Your task to perform on an android device: Go to wifi settings Image 0: 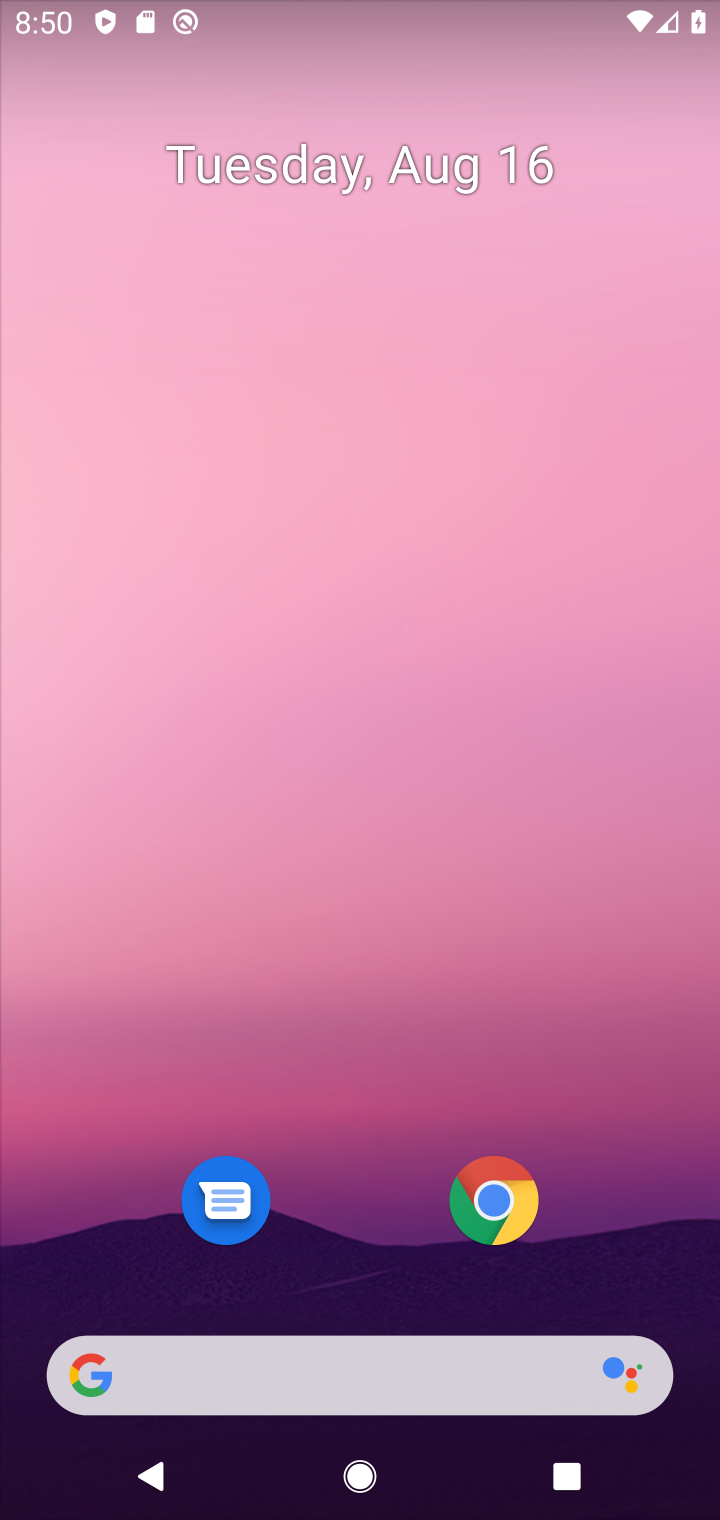
Step 0: drag from (318, 1228) to (320, 685)
Your task to perform on an android device: Go to wifi settings Image 1: 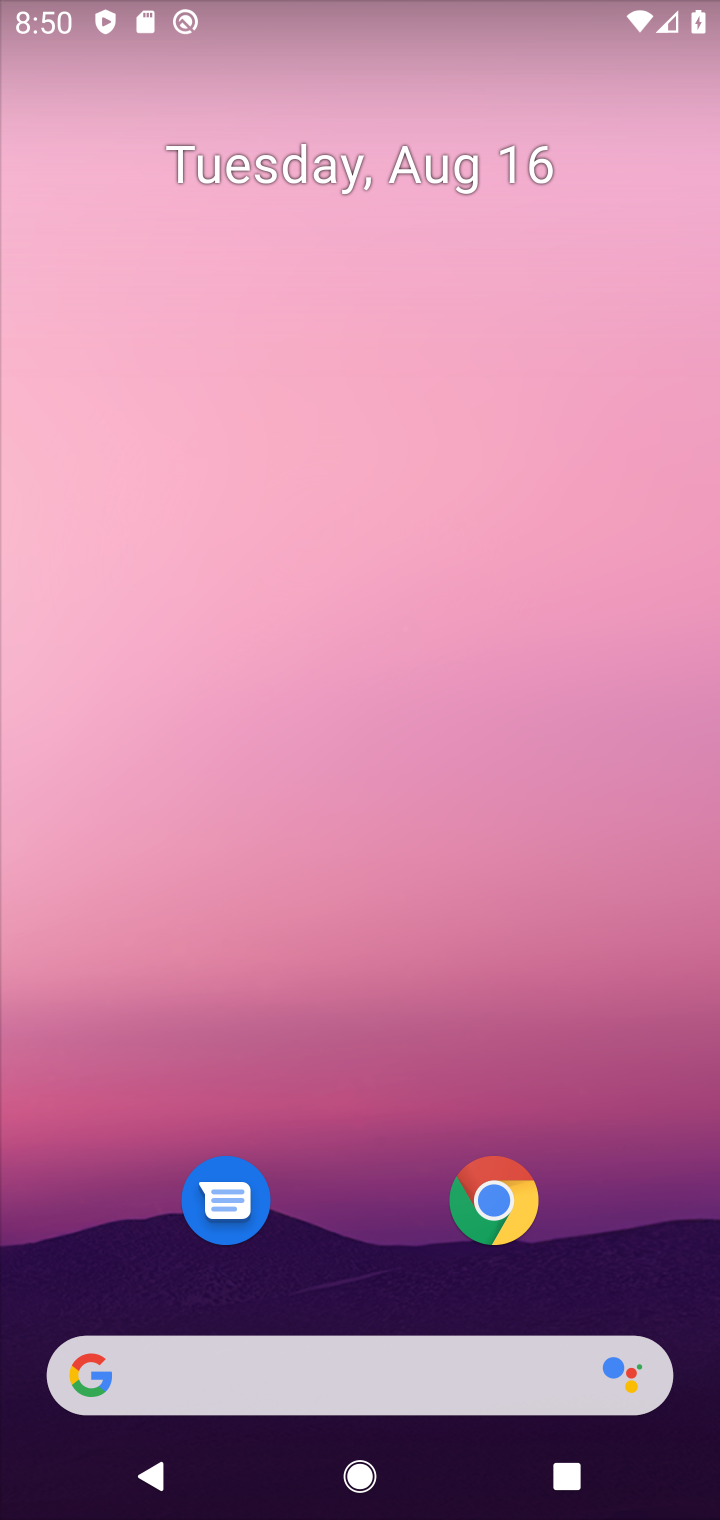
Step 1: drag from (334, 1216) to (561, 83)
Your task to perform on an android device: Go to wifi settings Image 2: 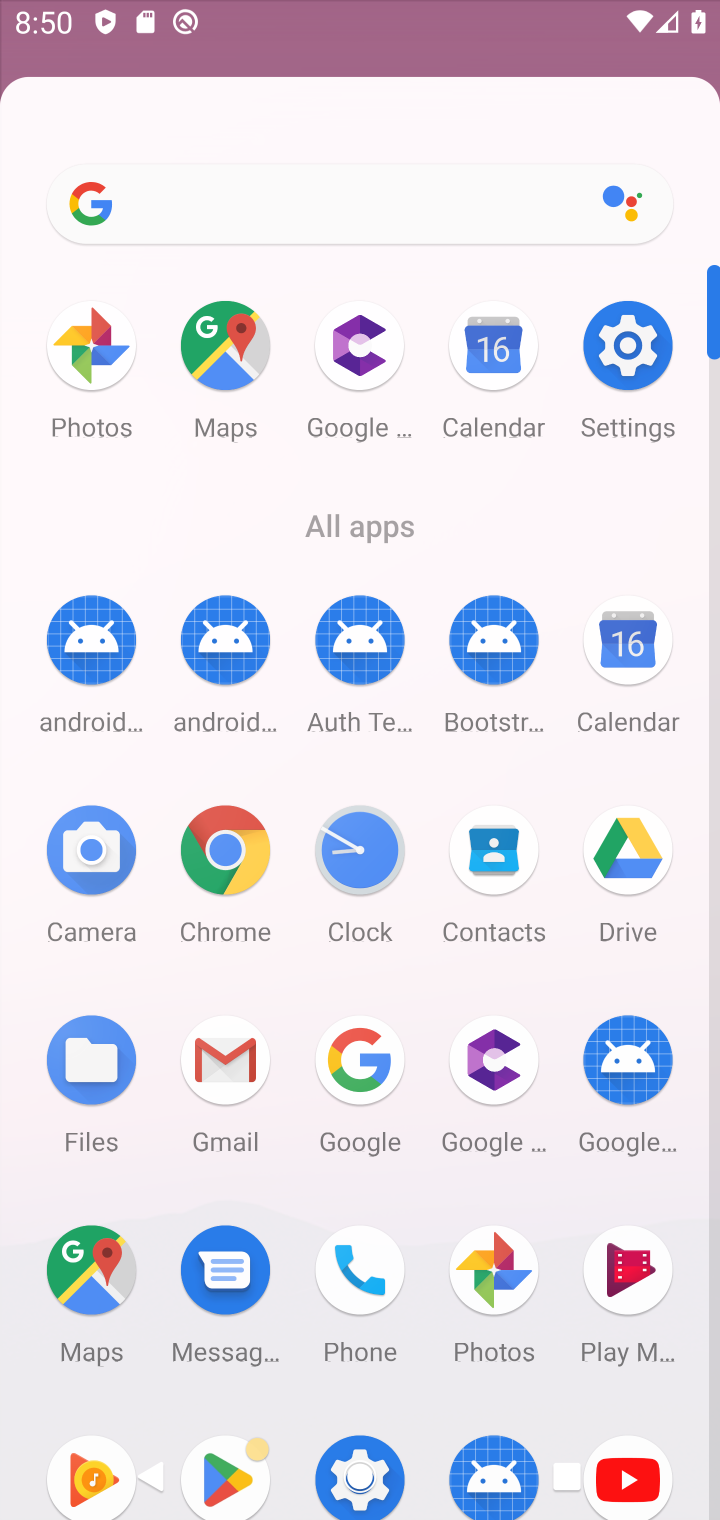
Step 2: click (637, 369)
Your task to perform on an android device: Go to wifi settings Image 3: 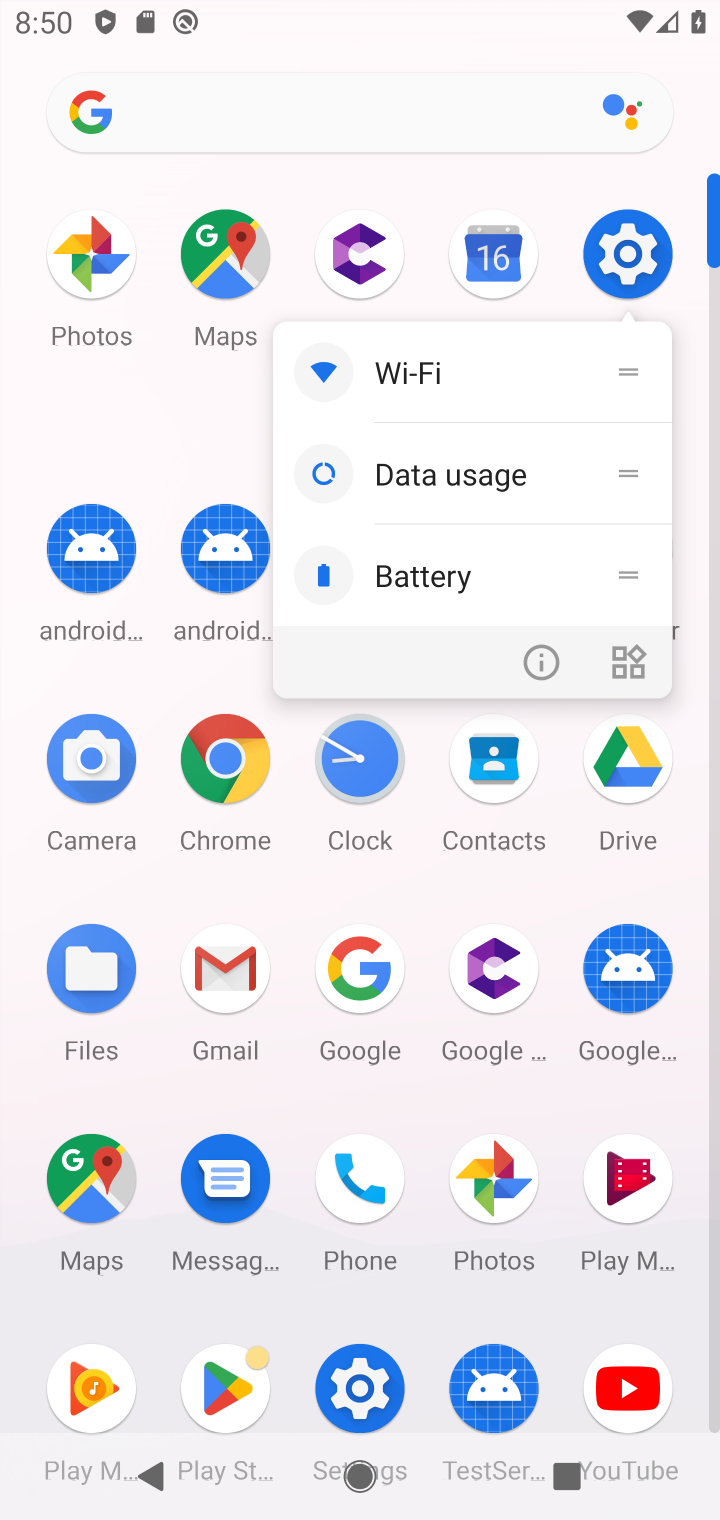
Step 3: click (501, 379)
Your task to perform on an android device: Go to wifi settings Image 4: 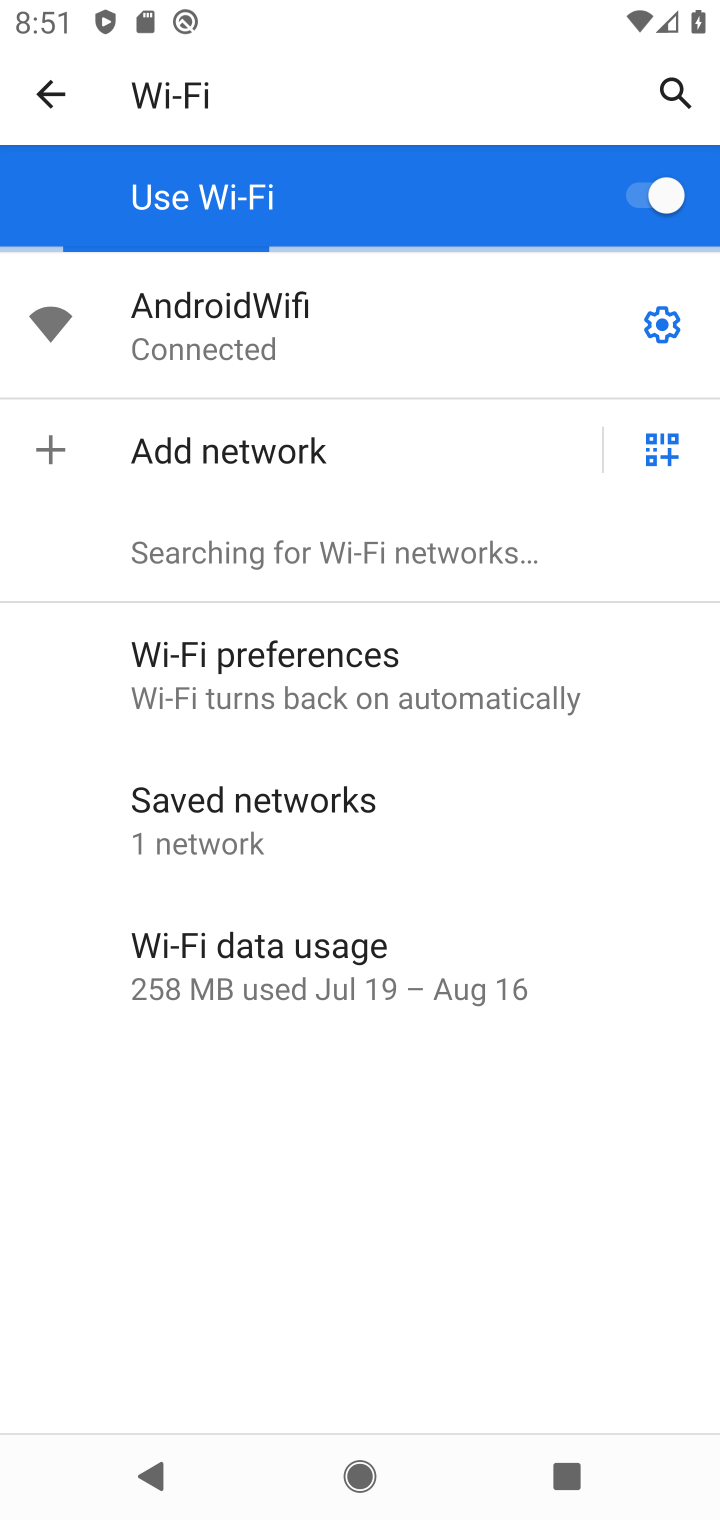
Step 4: task complete